Your task to perform on an android device: open a bookmark in the chrome app Image 0: 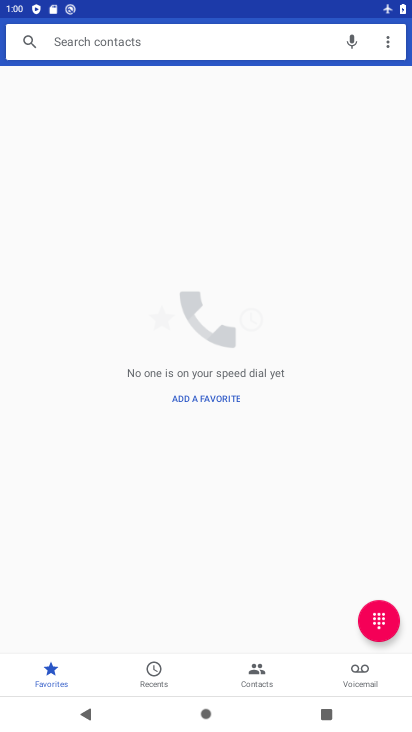
Step 0: press home button
Your task to perform on an android device: open a bookmark in the chrome app Image 1: 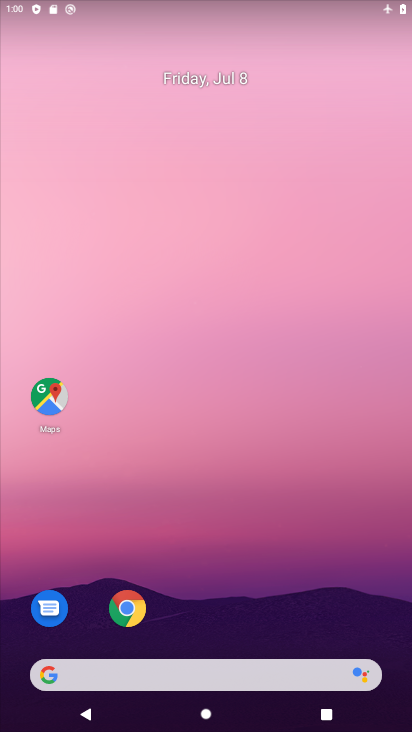
Step 1: click (130, 611)
Your task to perform on an android device: open a bookmark in the chrome app Image 2: 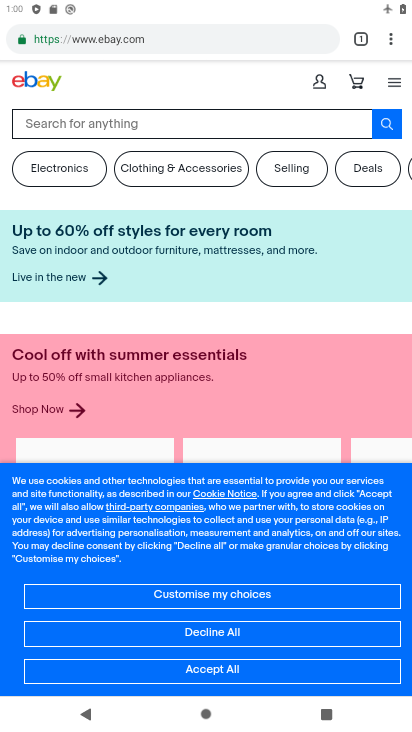
Step 2: click (386, 45)
Your task to perform on an android device: open a bookmark in the chrome app Image 3: 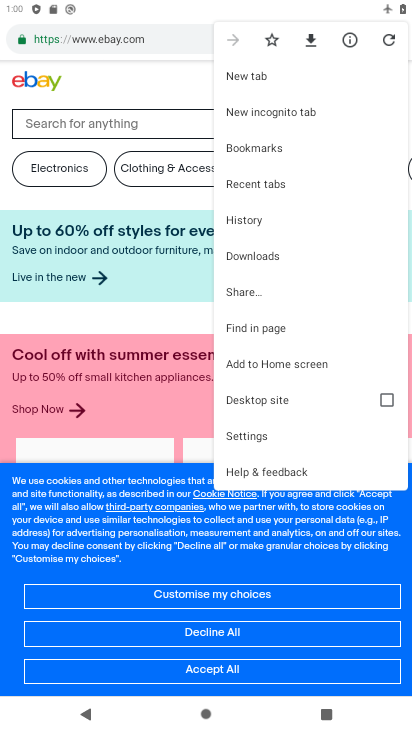
Step 3: click (239, 142)
Your task to perform on an android device: open a bookmark in the chrome app Image 4: 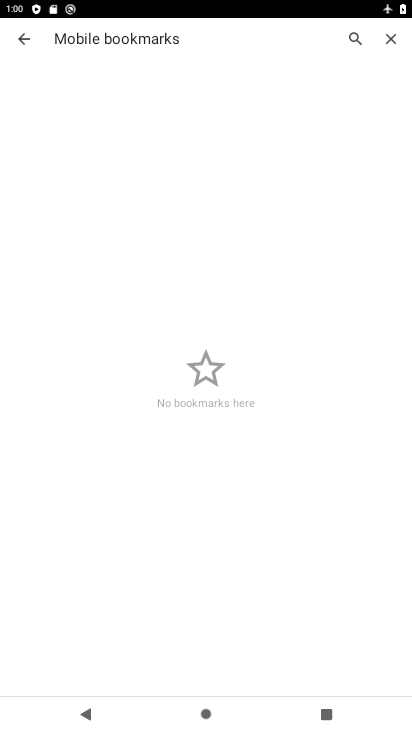
Step 4: task complete